Your task to perform on an android device: turn off data saver in the chrome app Image 0: 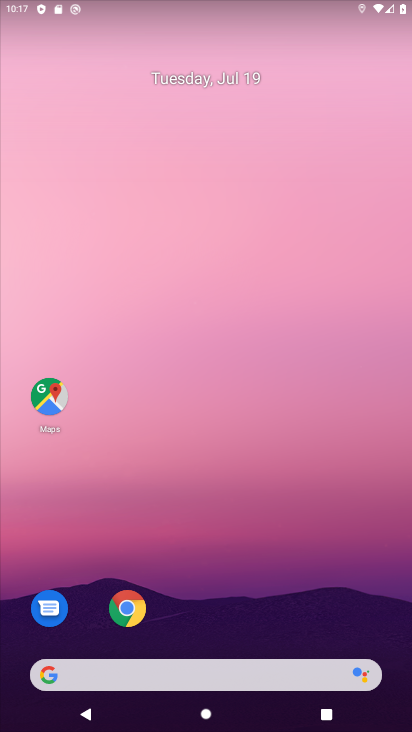
Step 0: click (124, 616)
Your task to perform on an android device: turn off data saver in the chrome app Image 1: 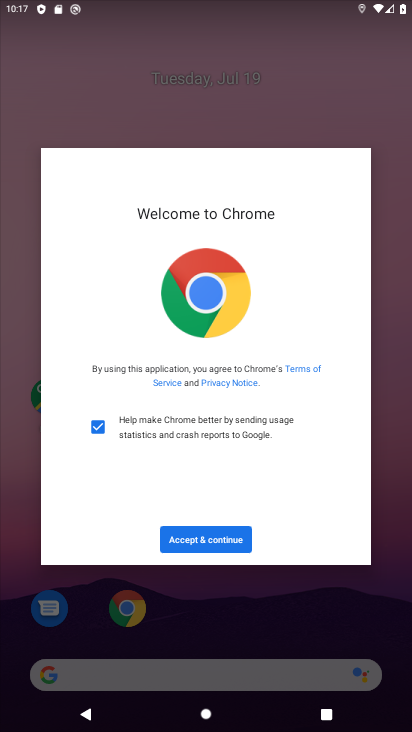
Step 1: click (192, 536)
Your task to perform on an android device: turn off data saver in the chrome app Image 2: 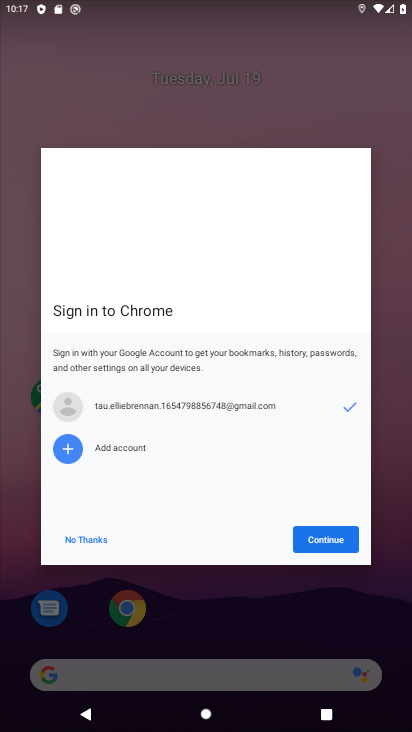
Step 2: click (346, 544)
Your task to perform on an android device: turn off data saver in the chrome app Image 3: 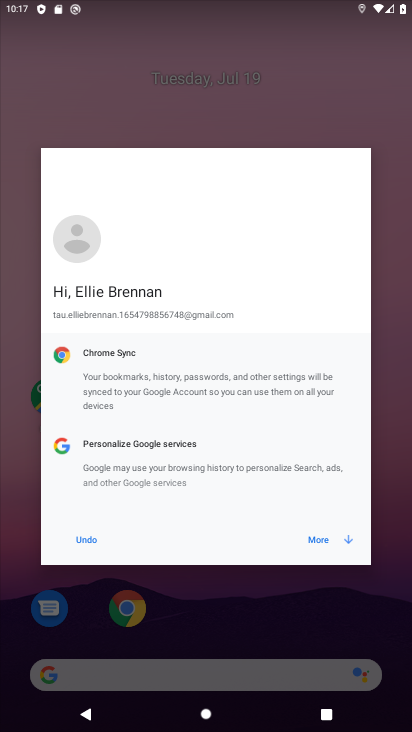
Step 3: click (346, 544)
Your task to perform on an android device: turn off data saver in the chrome app Image 4: 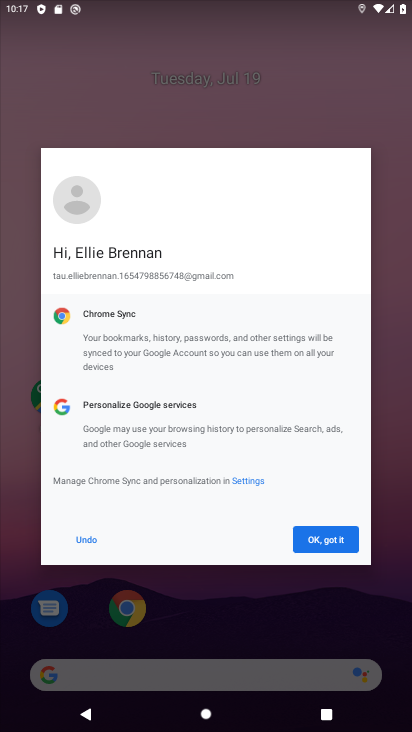
Step 4: click (346, 544)
Your task to perform on an android device: turn off data saver in the chrome app Image 5: 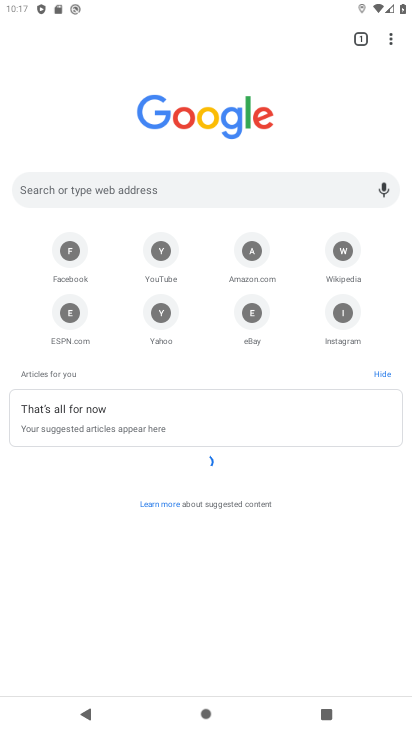
Step 5: click (387, 42)
Your task to perform on an android device: turn off data saver in the chrome app Image 6: 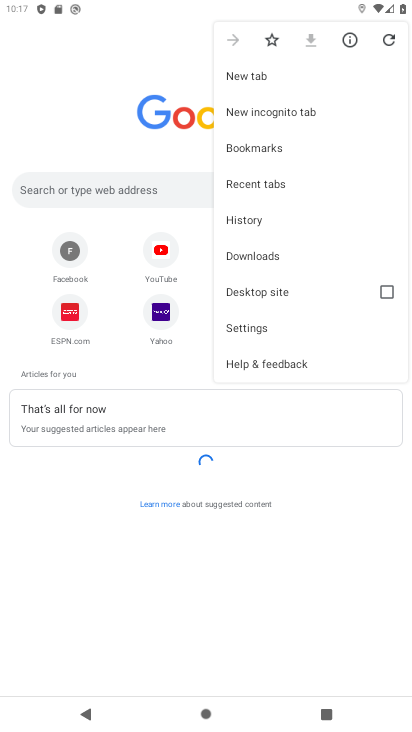
Step 6: click (247, 327)
Your task to perform on an android device: turn off data saver in the chrome app Image 7: 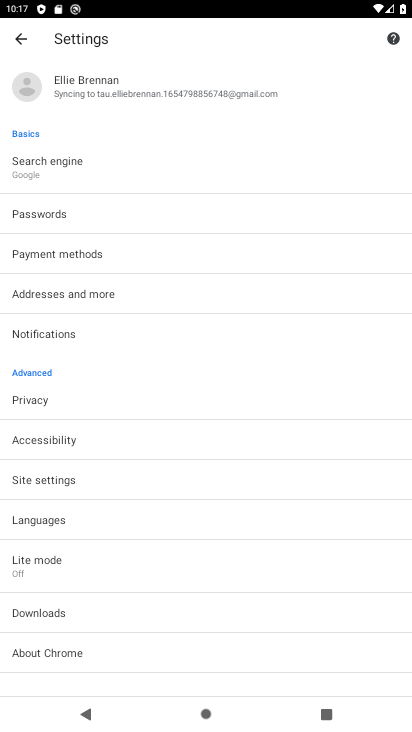
Step 7: click (43, 561)
Your task to perform on an android device: turn off data saver in the chrome app Image 8: 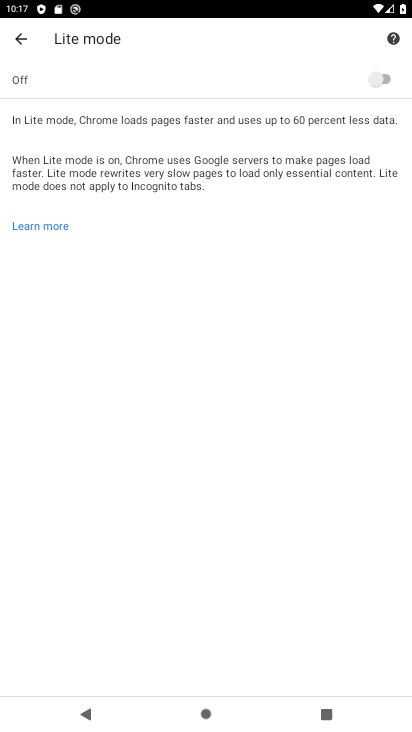
Step 8: task complete